Your task to perform on an android device: Open Yahoo.com Image 0: 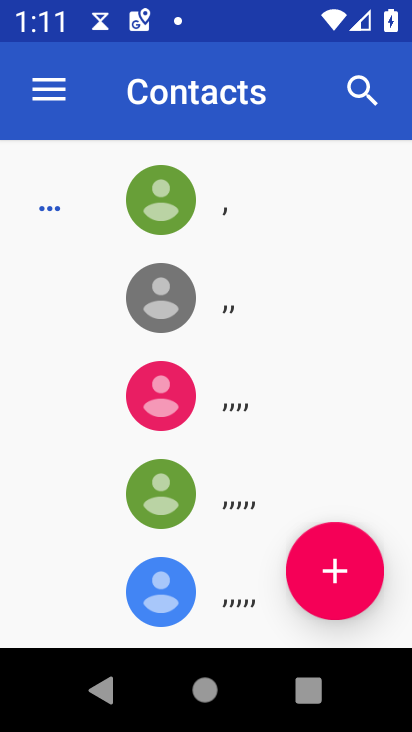
Step 0: press home button
Your task to perform on an android device: Open Yahoo.com Image 1: 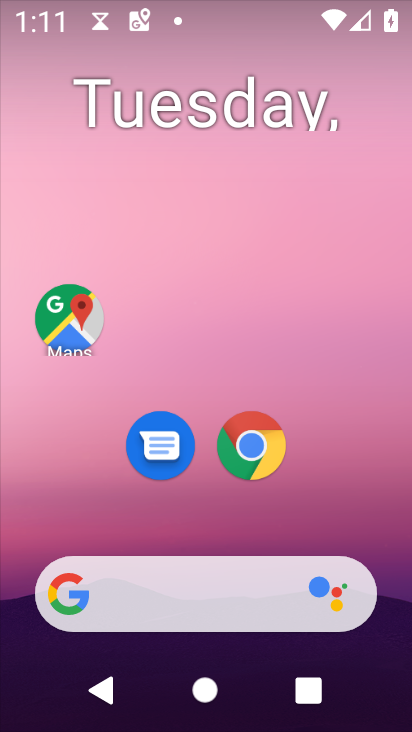
Step 1: drag from (274, 598) to (282, 155)
Your task to perform on an android device: Open Yahoo.com Image 2: 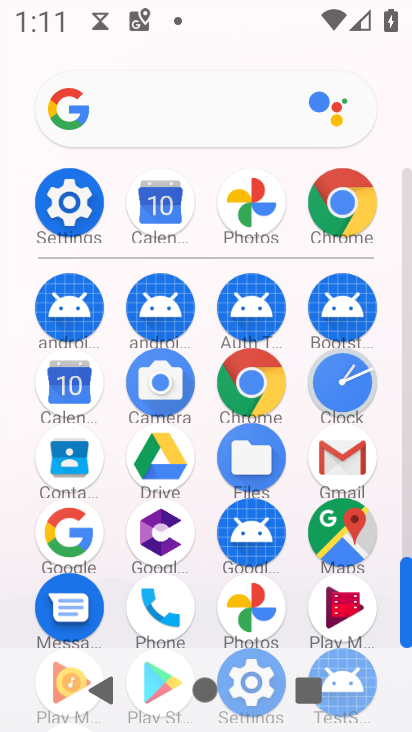
Step 2: click (256, 385)
Your task to perform on an android device: Open Yahoo.com Image 3: 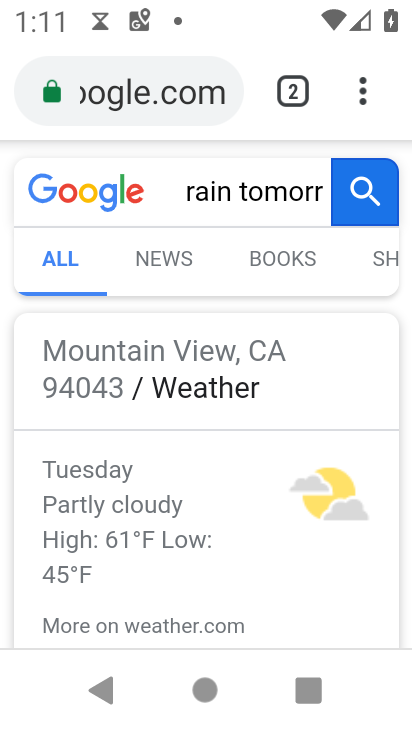
Step 3: click (190, 99)
Your task to perform on an android device: Open Yahoo.com Image 4: 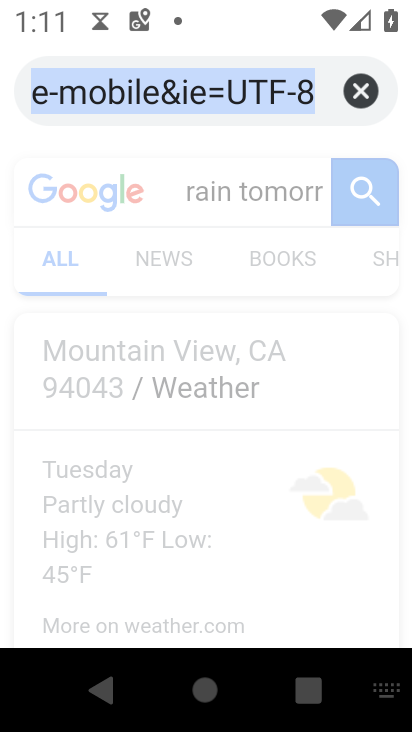
Step 4: click (346, 87)
Your task to perform on an android device: Open Yahoo.com Image 5: 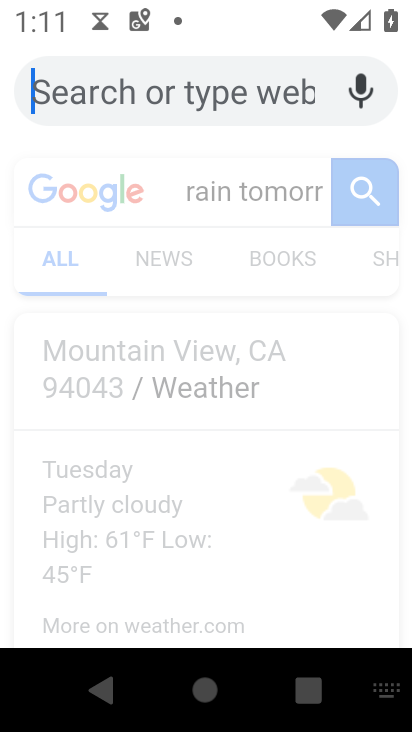
Step 5: type "yahoo.com"
Your task to perform on an android device: Open Yahoo.com Image 6: 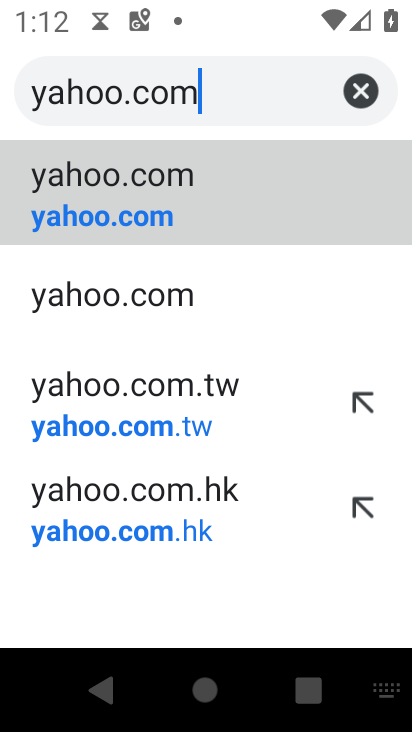
Step 6: click (190, 192)
Your task to perform on an android device: Open Yahoo.com Image 7: 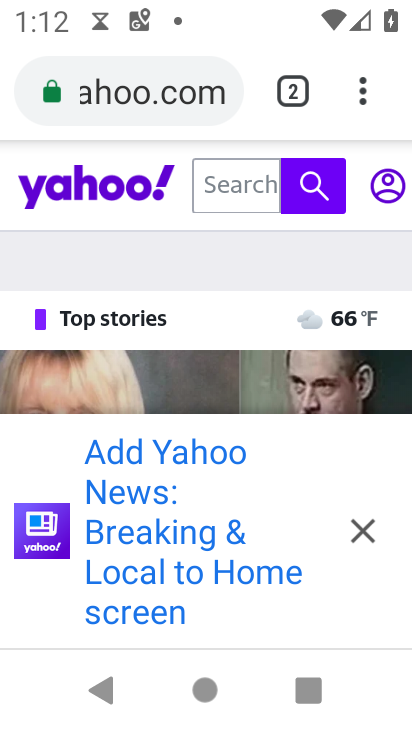
Step 7: task complete